Your task to perform on an android device: toggle airplane mode Image 0: 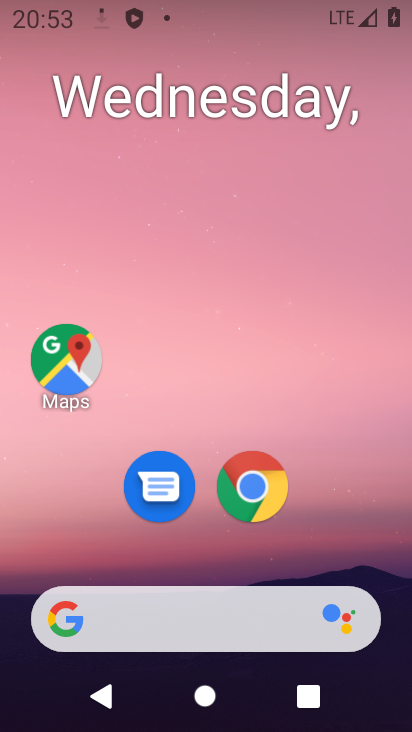
Step 0: drag from (364, 12) to (275, 559)
Your task to perform on an android device: toggle airplane mode Image 1: 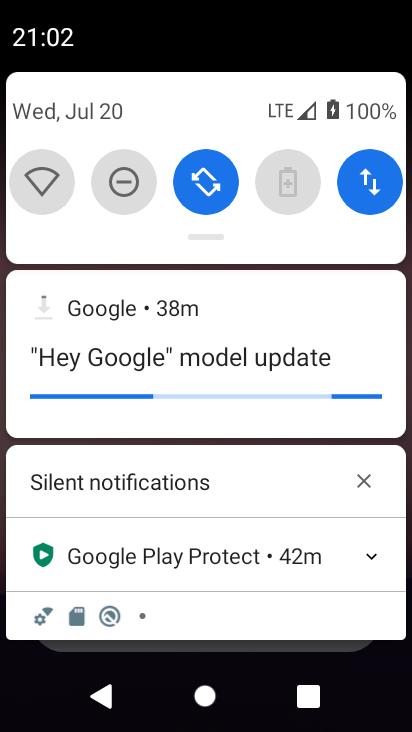
Step 1: drag from (213, 233) to (217, 731)
Your task to perform on an android device: toggle airplane mode Image 2: 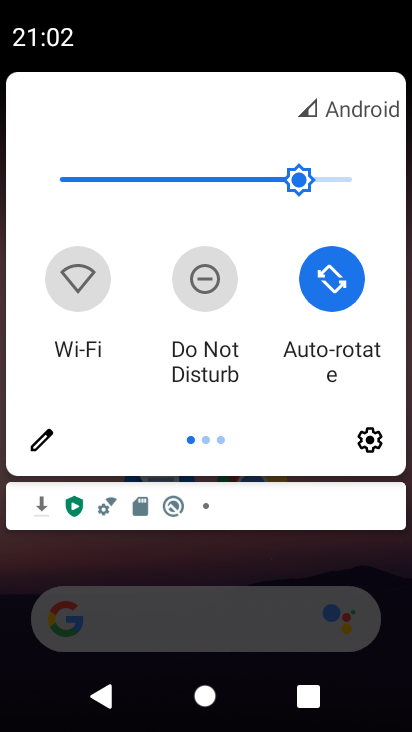
Step 2: drag from (358, 302) to (14, 288)
Your task to perform on an android device: toggle airplane mode Image 3: 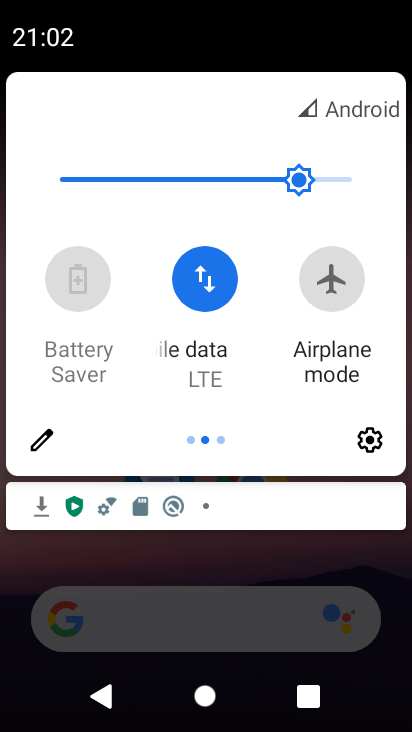
Step 3: click (326, 266)
Your task to perform on an android device: toggle airplane mode Image 4: 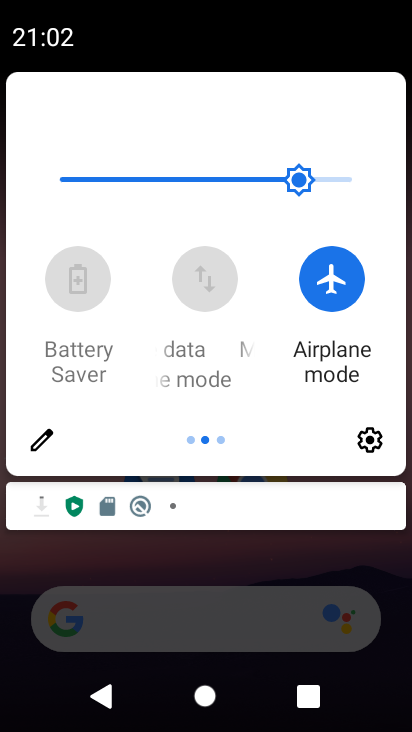
Step 4: task complete